Your task to perform on an android device: Search for sushi restaurants on Maps Image 0: 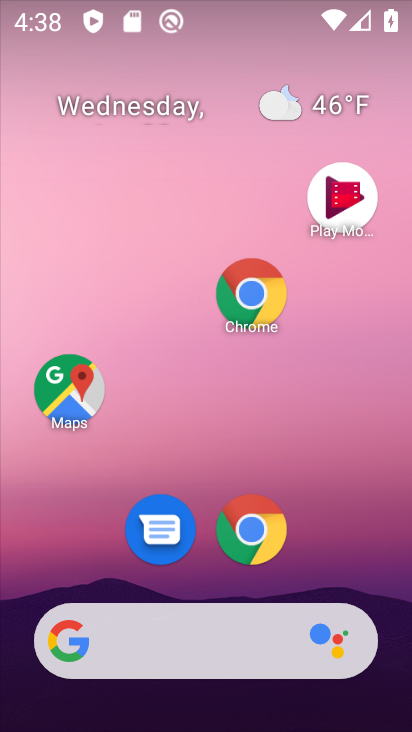
Step 0: click (61, 403)
Your task to perform on an android device: Search for sushi restaurants on Maps Image 1: 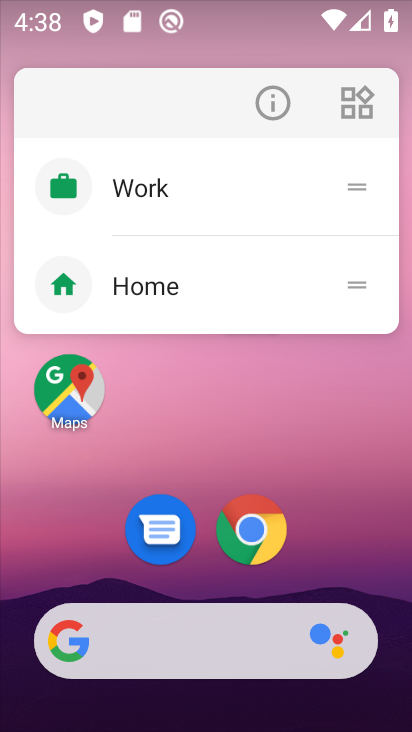
Step 1: click (63, 409)
Your task to perform on an android device: Search for sushi restaurants on Maps Image 2: 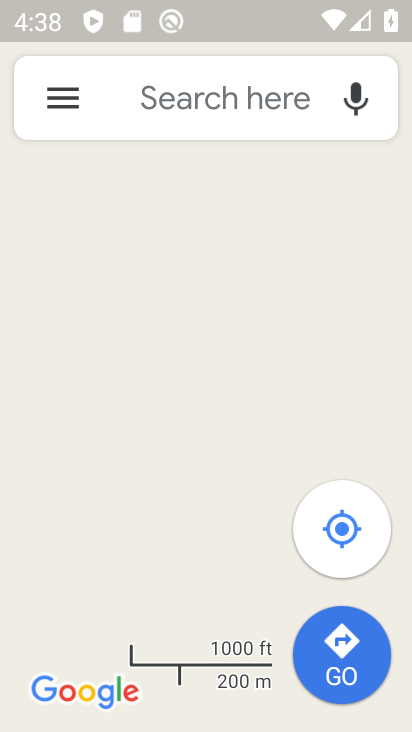
Step 2: click (212, 99)
Your task to perform on an android device: Search for sushi restaurants on Maps Image 3: 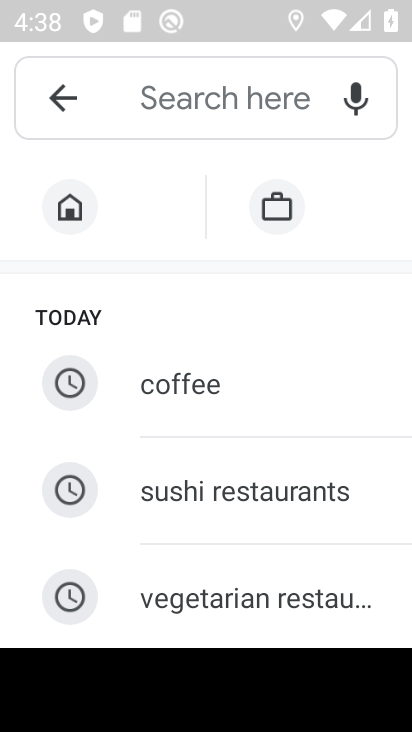
Step 3: type "sushi re"
Your task to perform on an android device: Search for sushi restaurants on Maps Image 4: 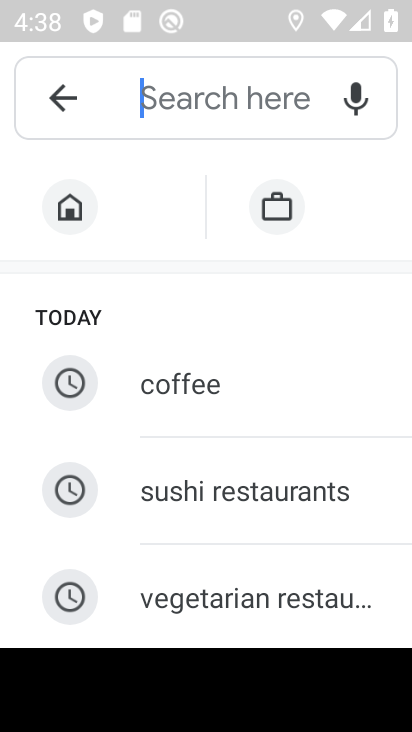
Step 4: click (316, 484)
Your task to perform on an android device: Search for sushi restaurants on Maps Image 5: 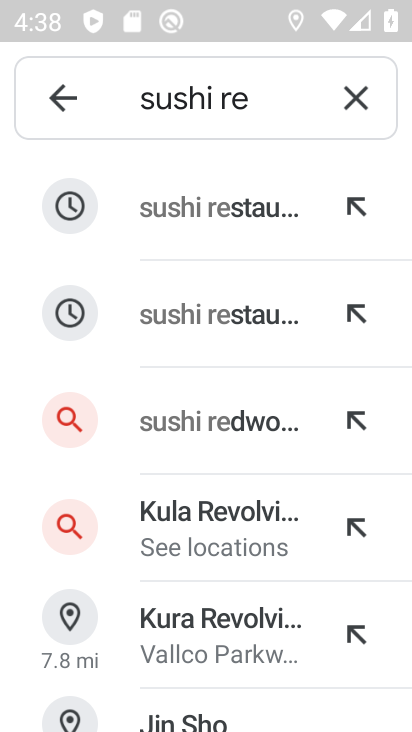
Step 5: click (232, 203)
Your task to perform on an android device: Search for sushi restaurants on Maps Image 6: 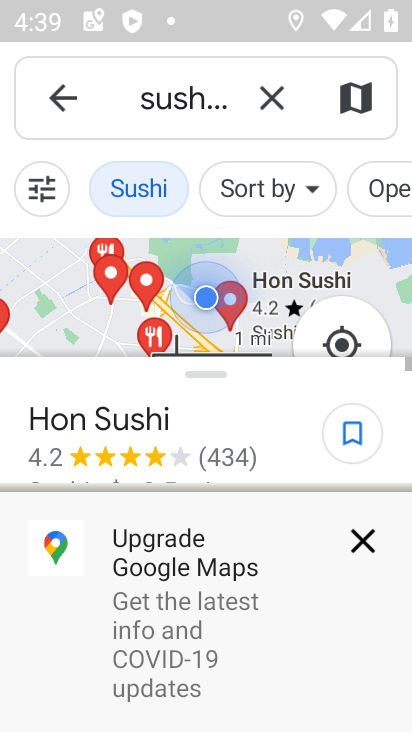
Step 6: task complete